Your task to perform on an android device: Open the stopwatch Image 0: 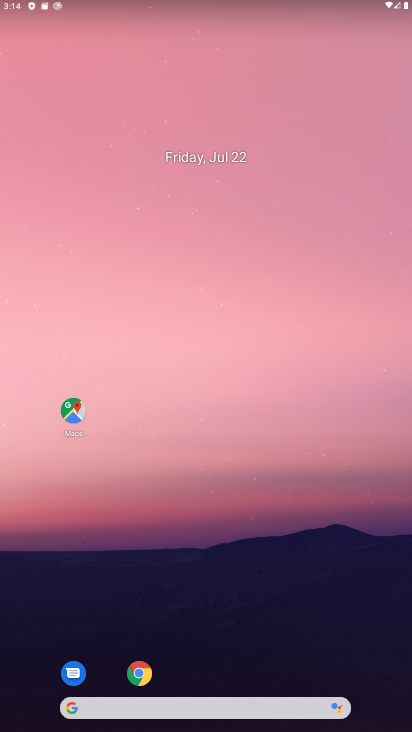
Step 0: drag from (174, 677) to (224, 199)
Your task to perform on an android device: Open the stopwatch Image 1: 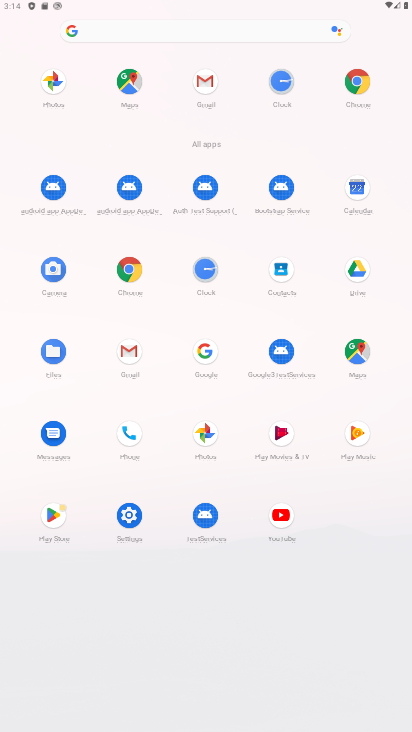
Step 1: click (202, 266)
Your task to perform on an android device: Open the stopwatch Image 2: 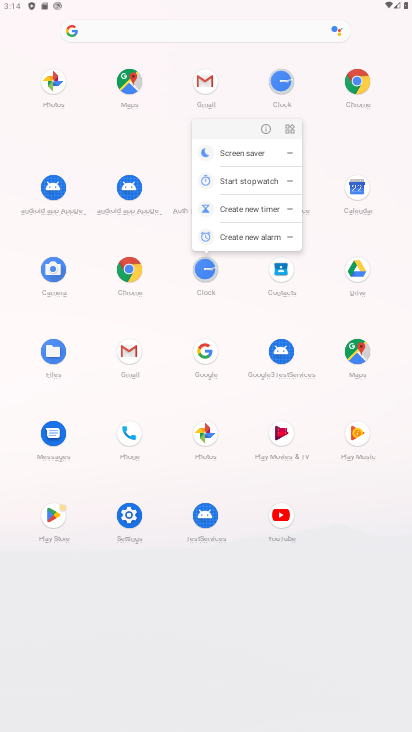
Step 2: click (260, 125)
Your task to perform on an android device: Open the stopwatch Image 3: 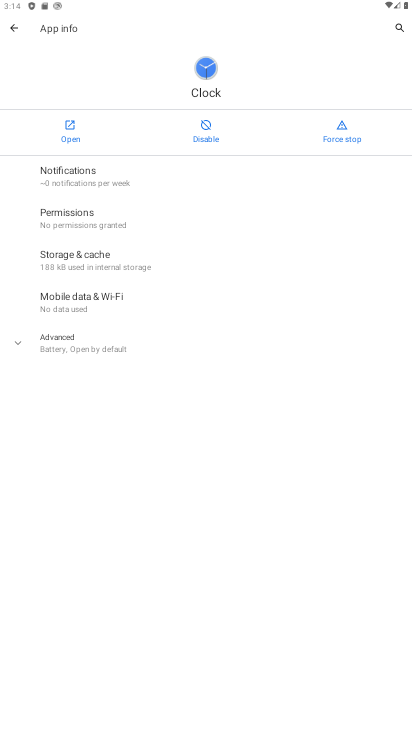
Step 3: click (70, 130)
Your task to perform on an android device: Open the stopwatch Image 4: 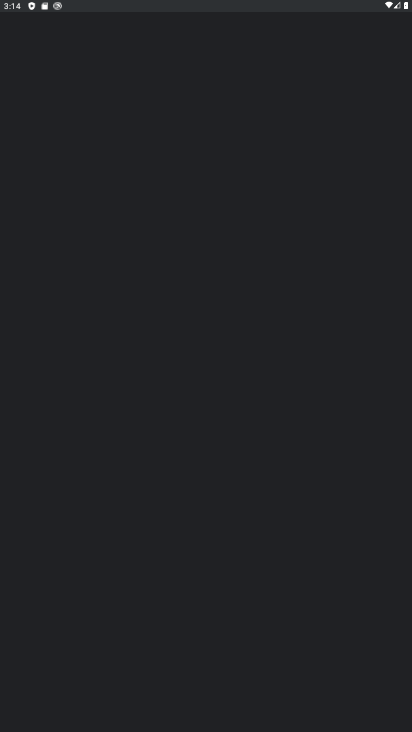
Step 4: drag from (216, 617) to (212, 234)
Your task to perform on an android device: Open the stopwatch Image 5: 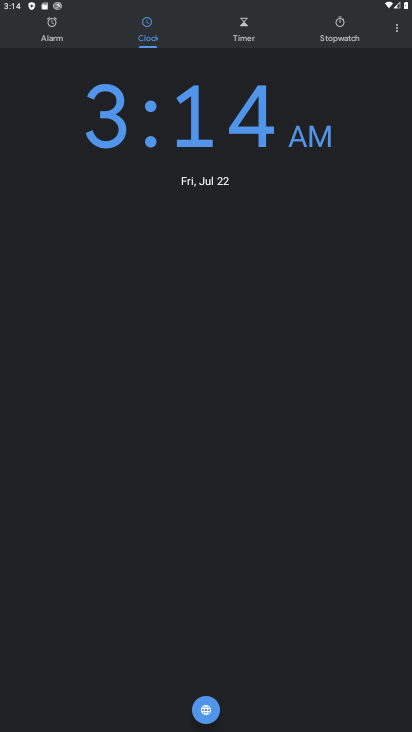
Step 5: click (329, 34)
Your task to perform on an android device: Open the stopwatch Image 6: 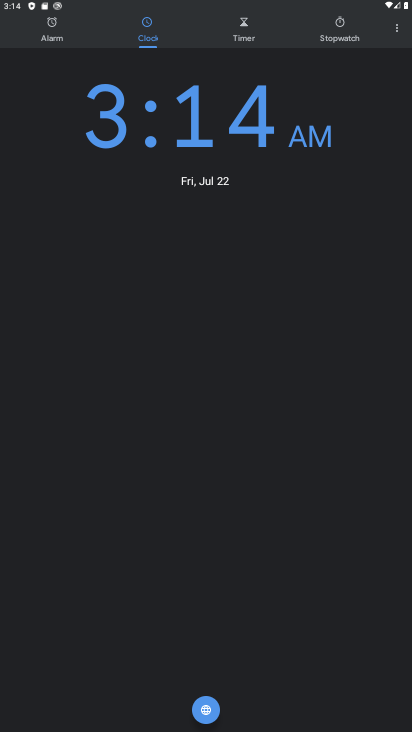
Step 6: click (344, 20)
Your task to perform on an android device: Open the stopwatch Image 7: 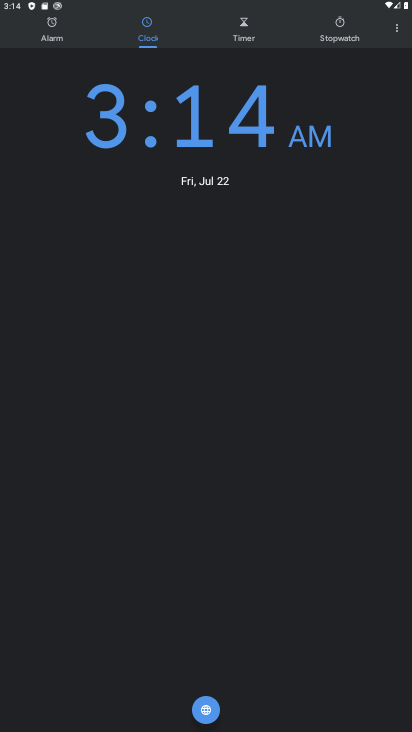
Step 7: click (350, 35)
Your task to perform on an android device: Open the stopwatch Image 8: 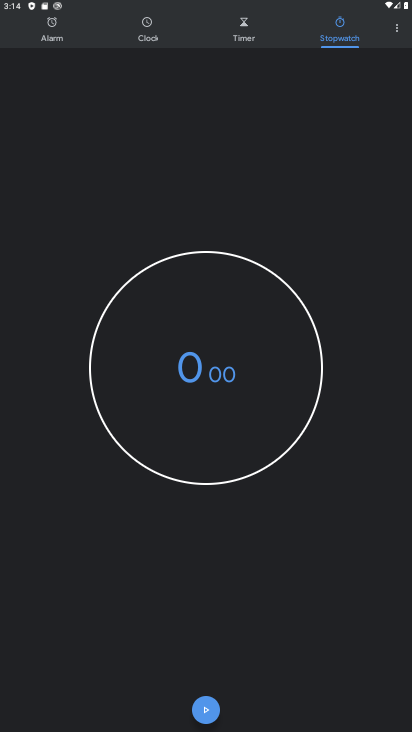
Step 8: click (212, 703)
Your task to perform on an android device: Open the stopwatch Image 9: 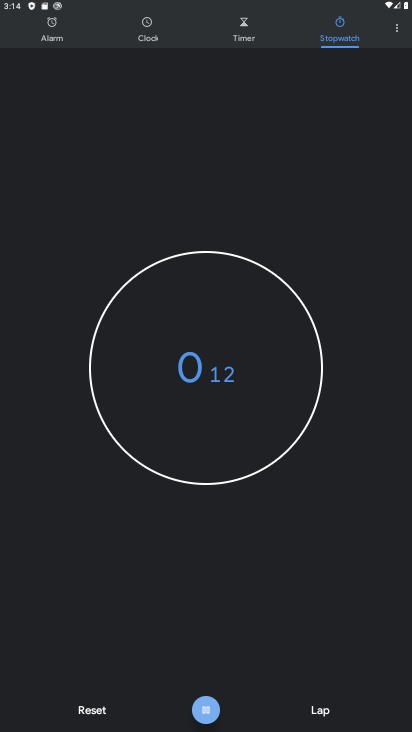
Step 9: drag from (272, 334) to (289, 159)
Your task to perform on an android device: Open the stopwatch Image 10: 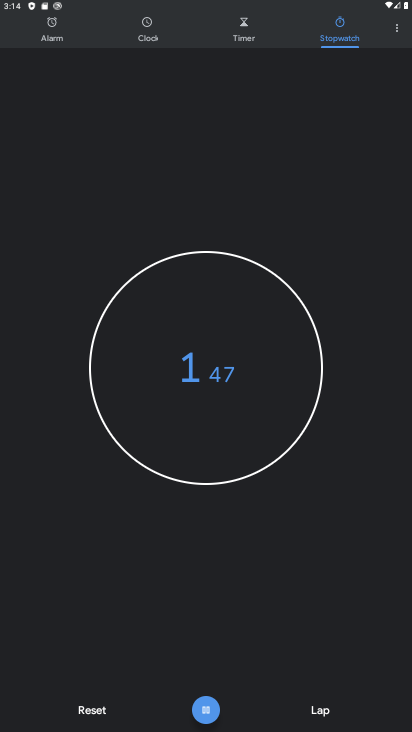
Step 10: drag from (221, 472) to (255, 266)
Your task to perform on an android device: Open the stopwatch Image 11: 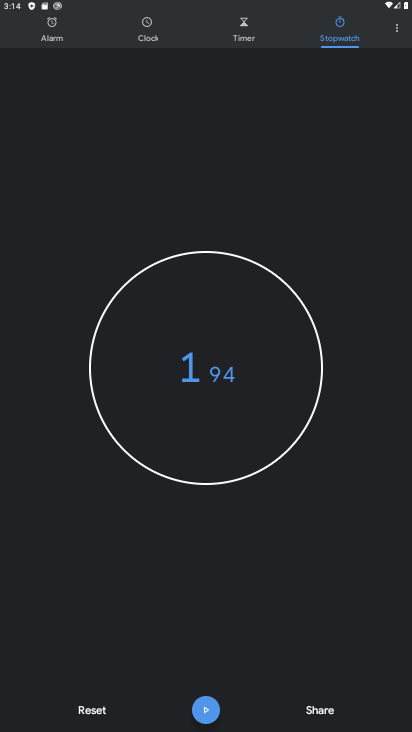
Step 11: drag from (153, 551) to (222, 312)
Your task to perform on an android device: Open the stopwatch Image 12: 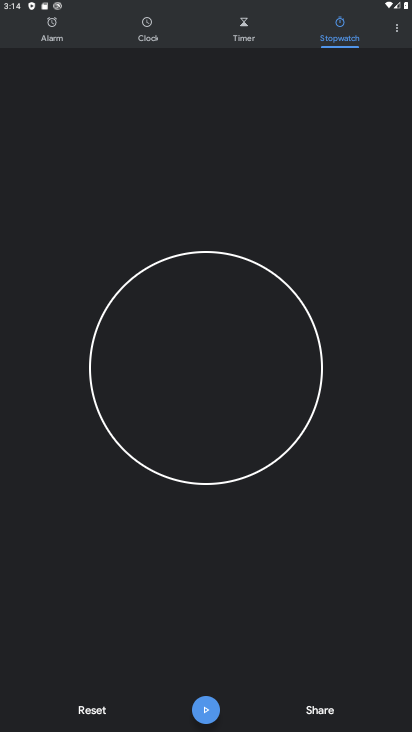
Step 12: click (203, 713)
Your task to perform on an android device: Open the stopwatch Image 13: 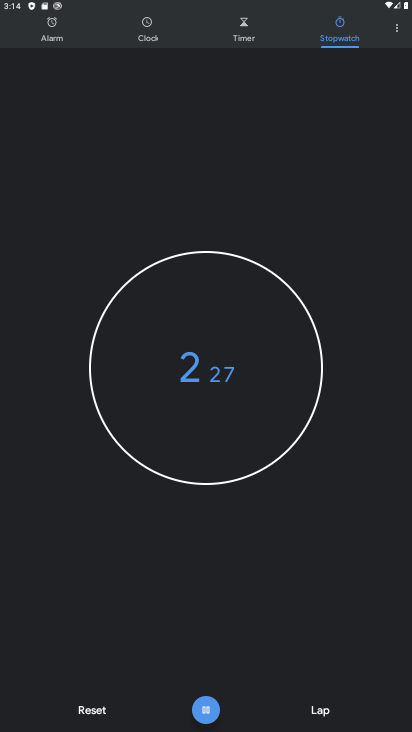
Step 13: task complete